Your task to perform on an android device: check the backup settings in the google photos Image 0: 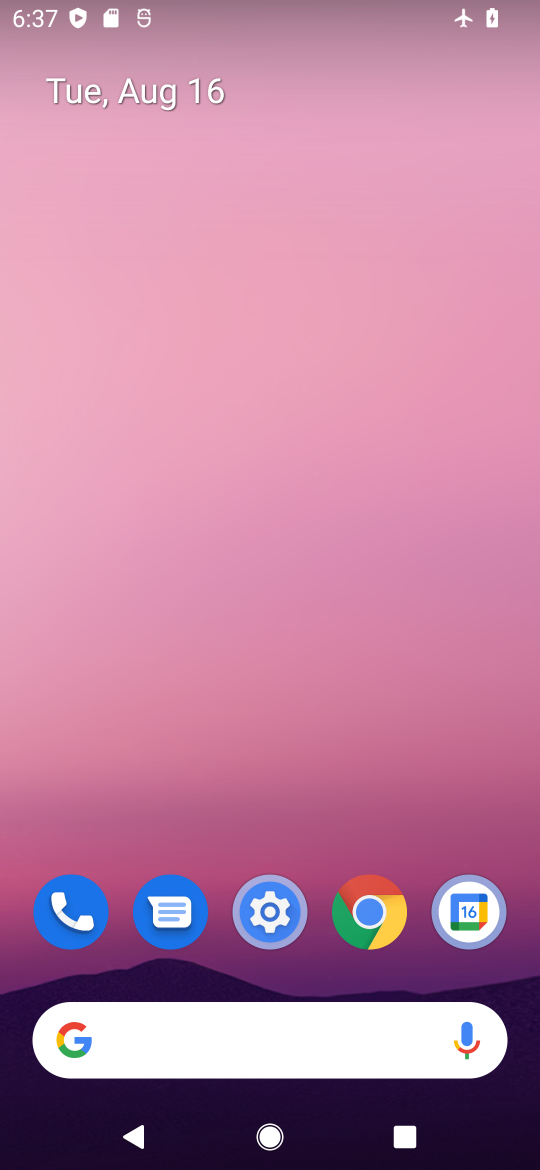
Step 0: drag from (434, 970) to (383, 369)
Your task to perform on an android device: check the backup settings in the google photos Image 1: 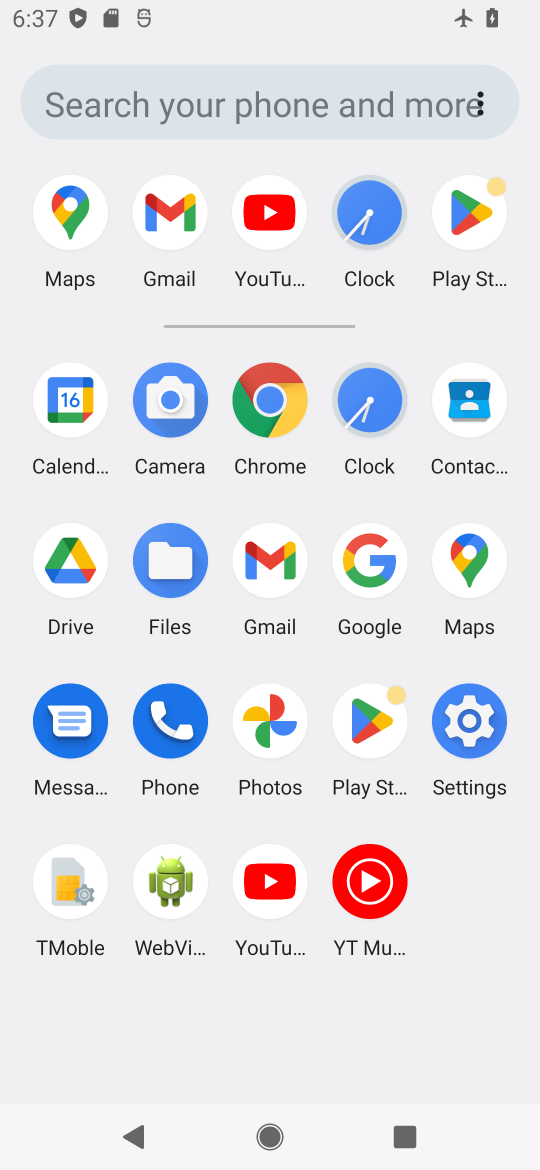
Step 1: click (274, 722)
Your task to perform on an android device: check the backup settings in the google photos Image 2: 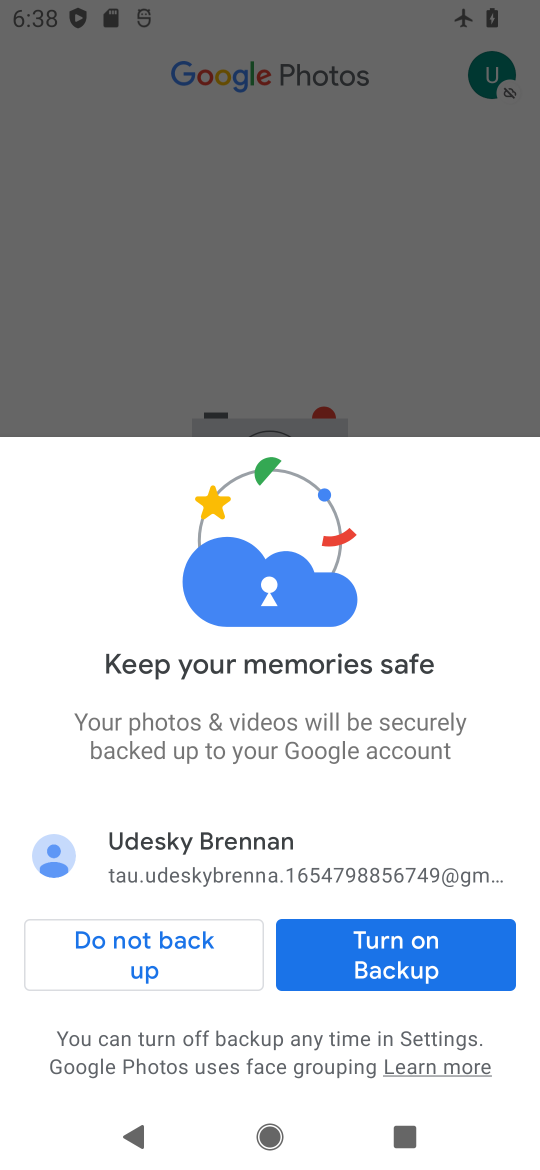
Step 2: click (410, 972)
Your task to perform on an android device: check the backup settings in the google photos Image 3: 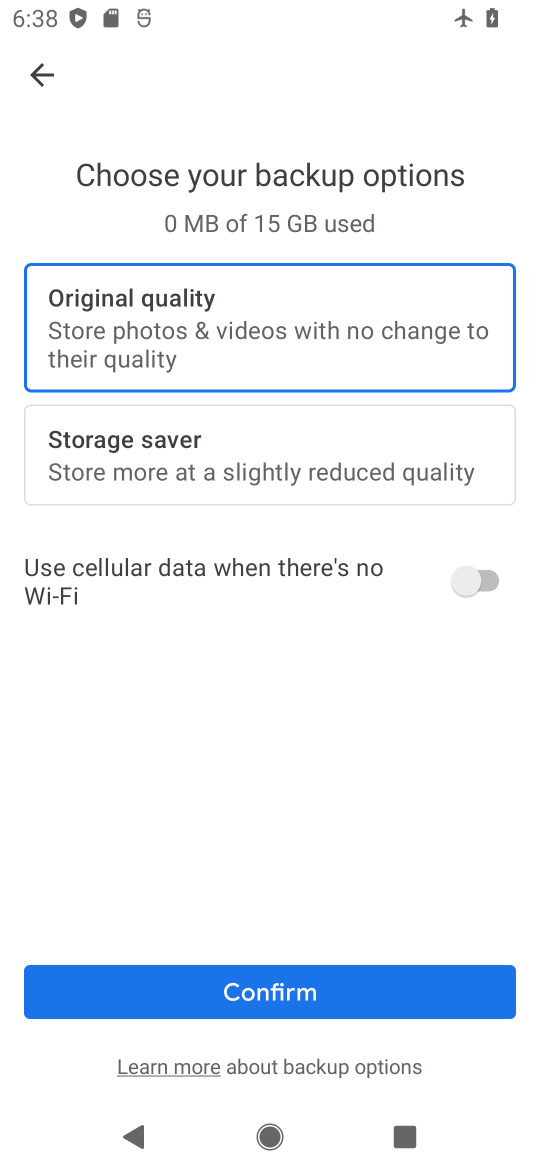
Step 3: click (334, 1009)
Your task to perform on an android device: check the backup settings in the google photos Image 4: 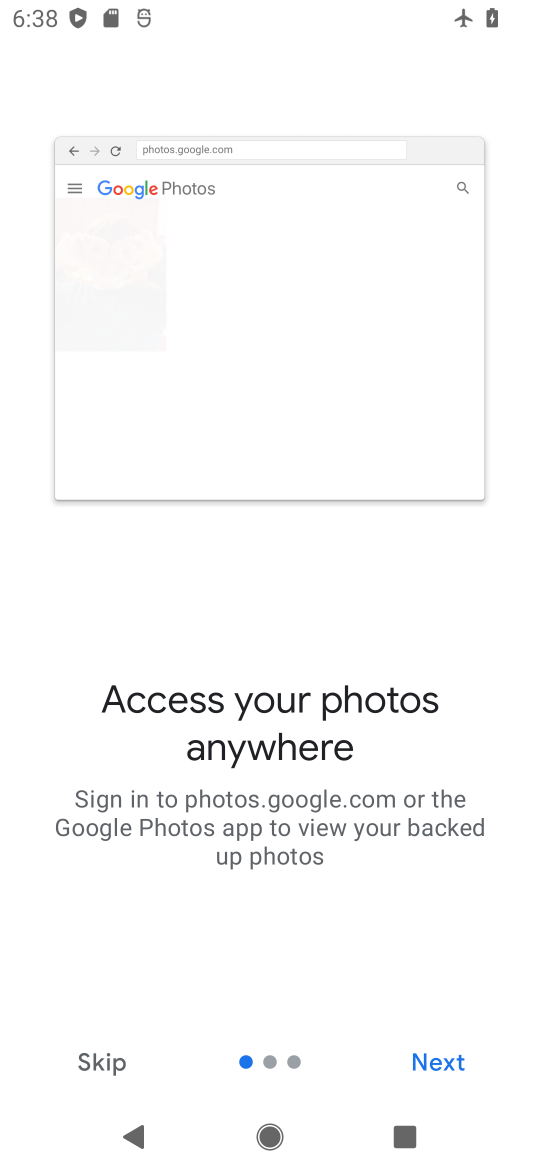
Step 4: click (85, 1056)
Your task to perform on an android device: check the backup settings in the google photos Image 5: 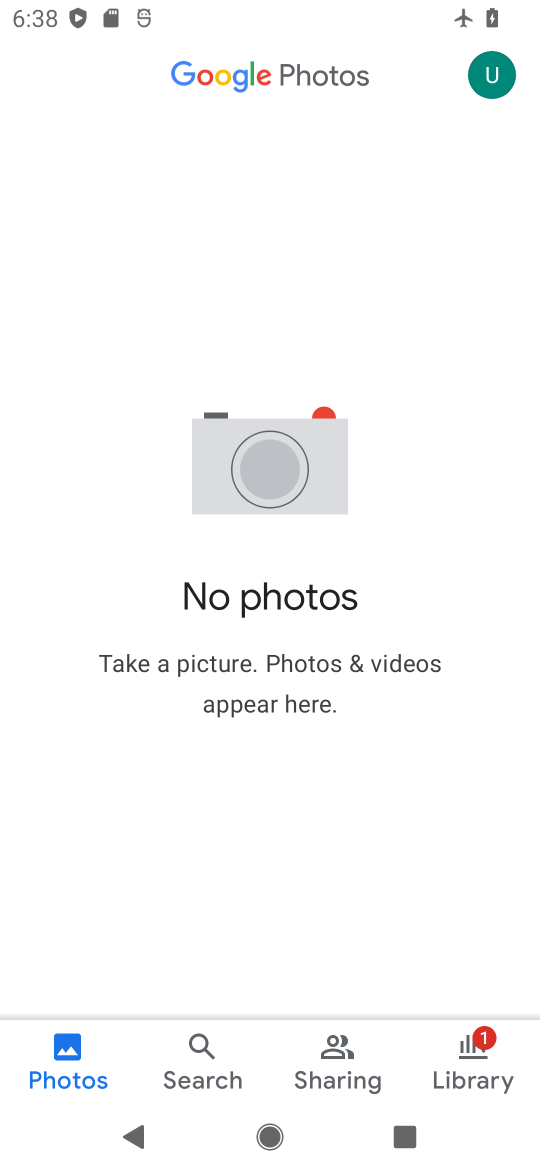
Step 5: click (473, 1039)
Your task to perform on an android device: check the backup settings in the google photos Image 6: 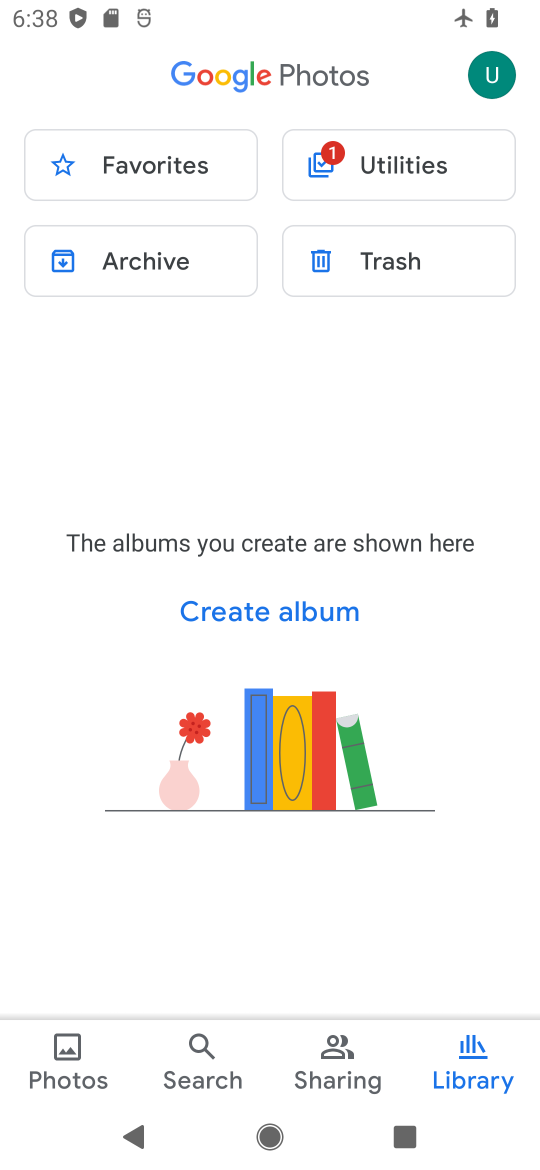
Step 6: click (78, 1067)
Your task to perform on an android device: check the backup settings in the google photos Image 7: 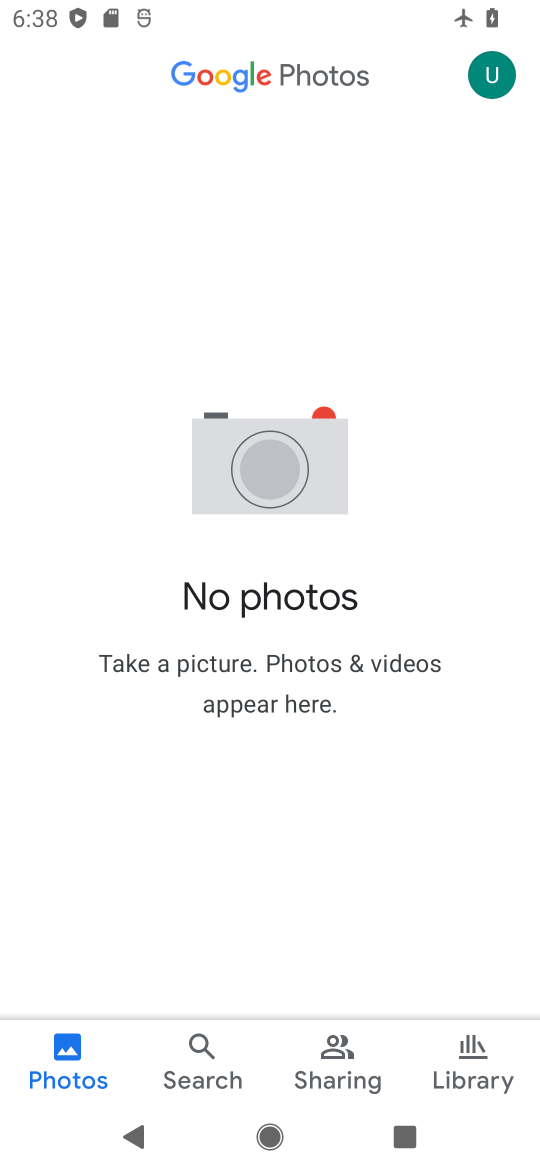
Step 7: click (492, 66)
Your task to perform on an android device: check the backup settings in the google photos Image 8: 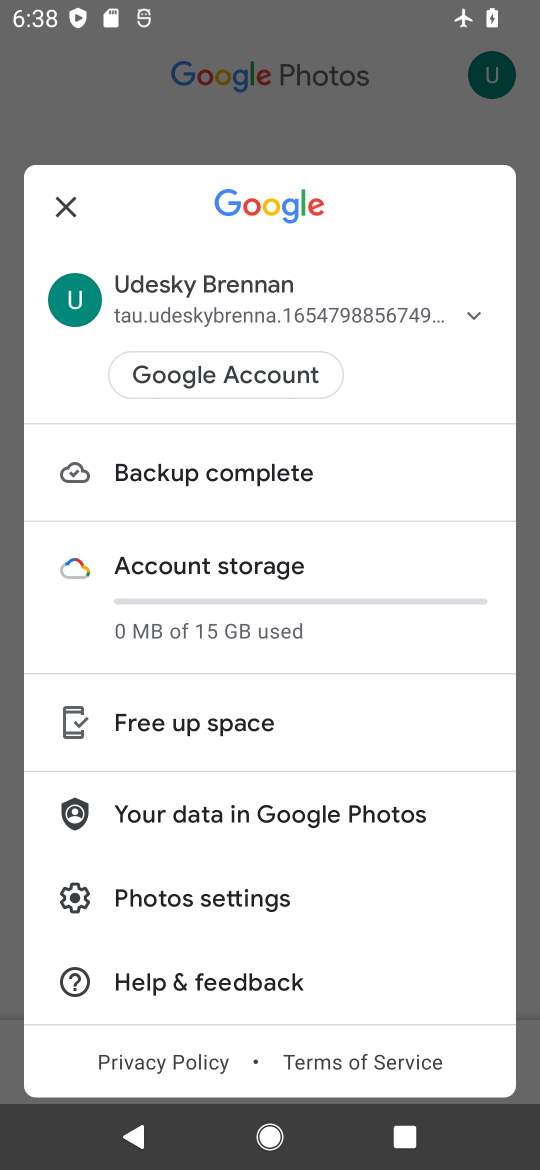
Step 8: click (192, 892)
Your task to perform on an android device: check the backup settings in the google photos Image 9: 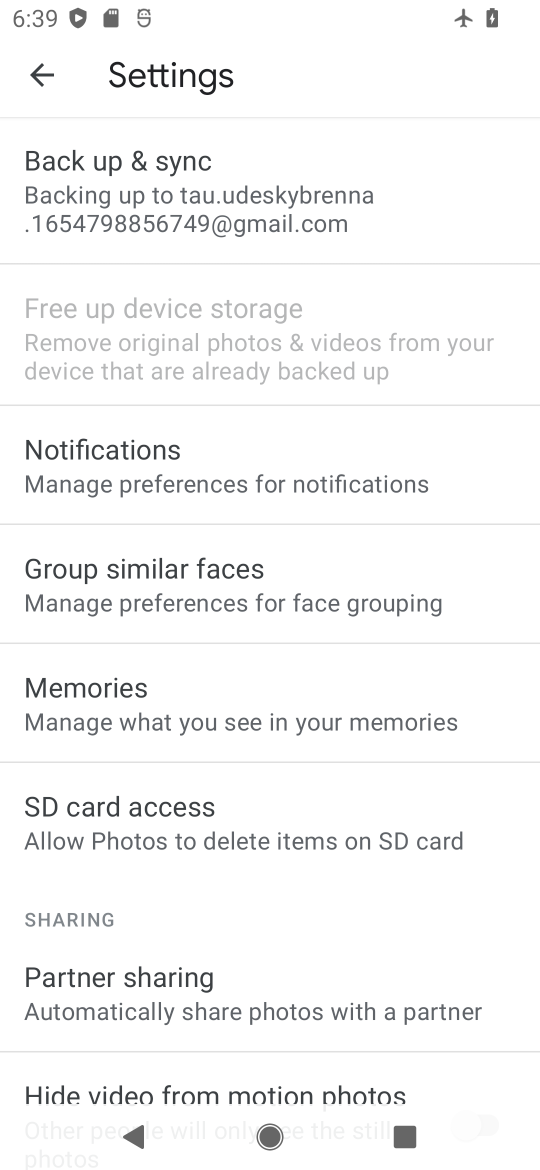
Step 9: click (161, 191)
Your task to perform on an android device: check the backup settings in the google photos Image 10: 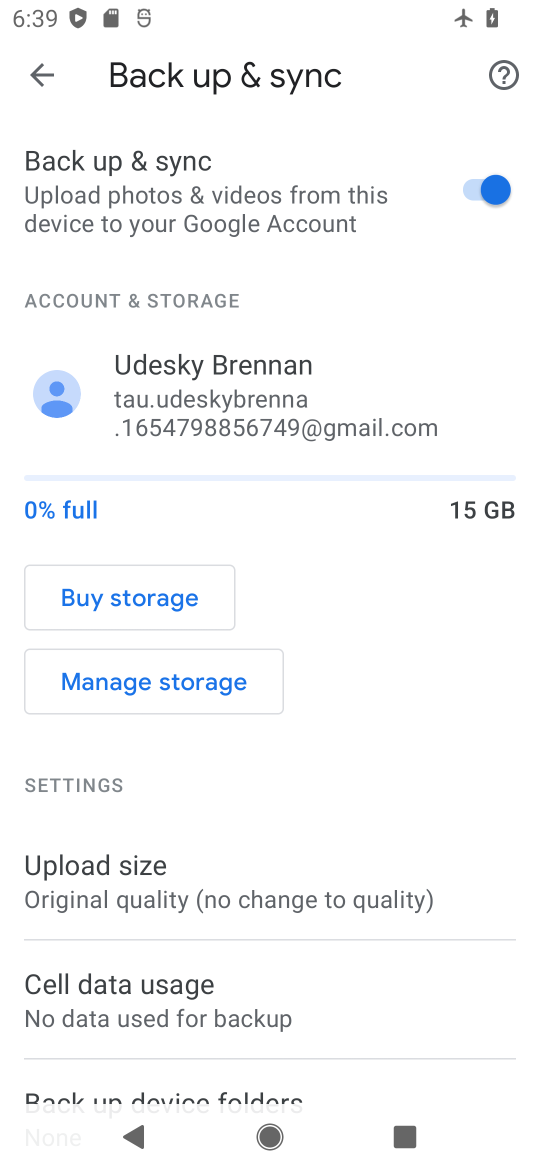
Step 10: task complete